Your task to perform on an android device: Go to calendar. Show me events next week Image 0: 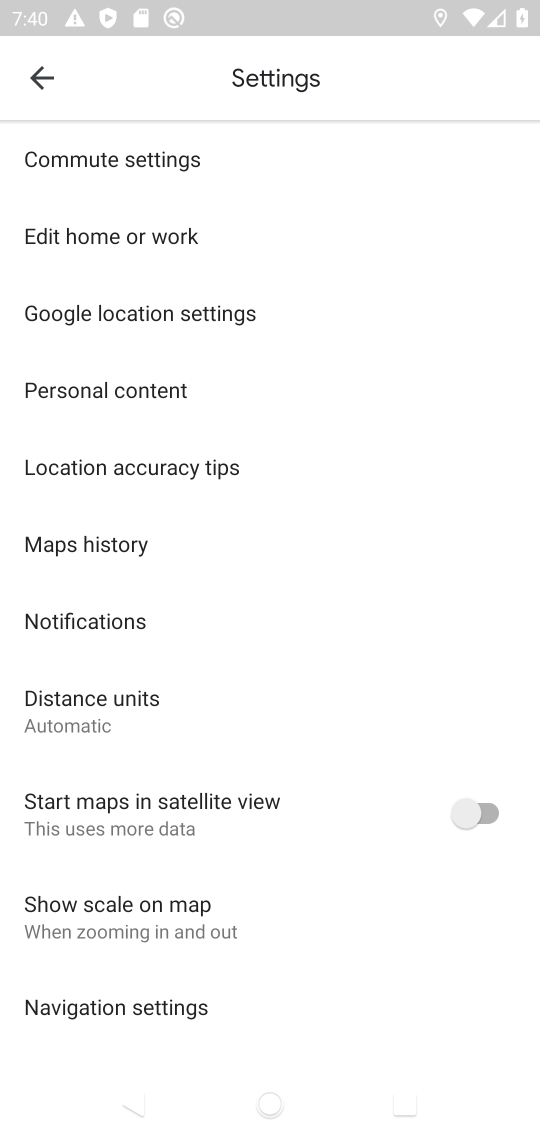
Step 0: press home button
Your task to perform on an android device: Go to calendar. Show me events next week Image 1: 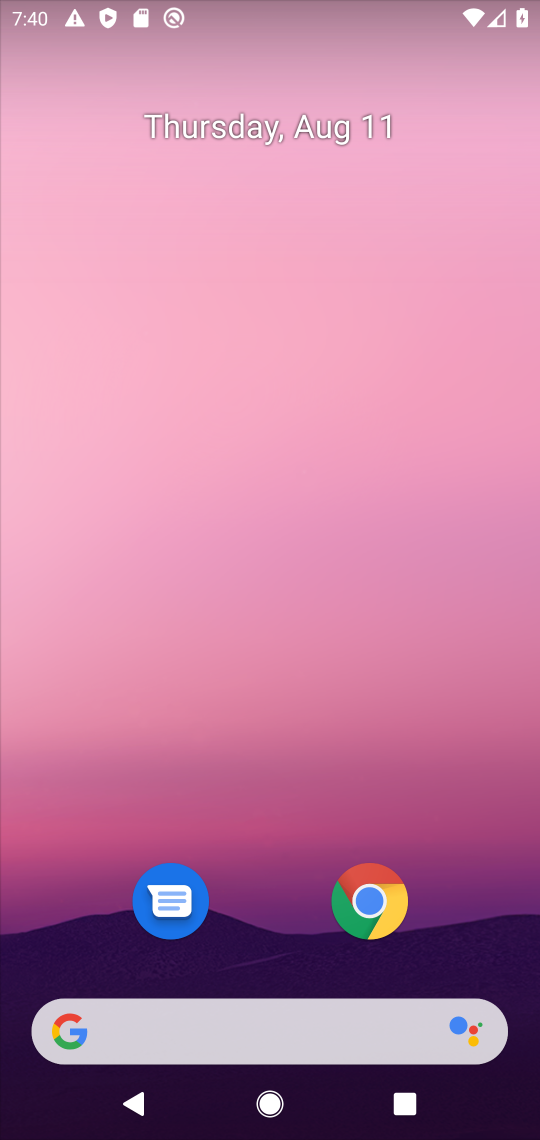
Step 1: drag from (281, 916) to (416, 41)
Your task to perform on an android device: Go to calendar. Show me events next week Image 2: 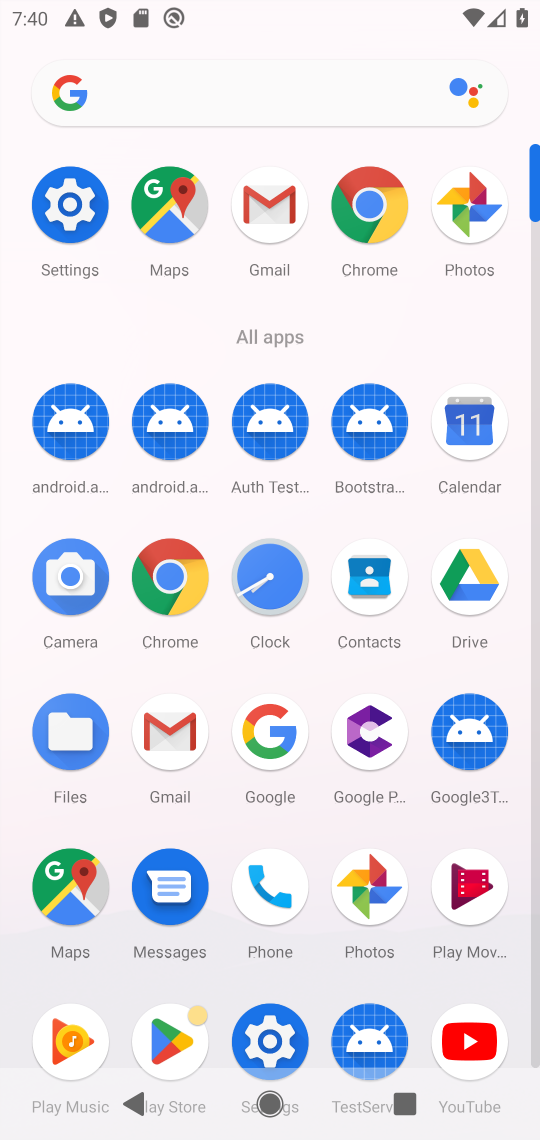
Step 2: click (471, 435)
Your task to perform on an android device: Go to calendar. Show me events next week Image 3: 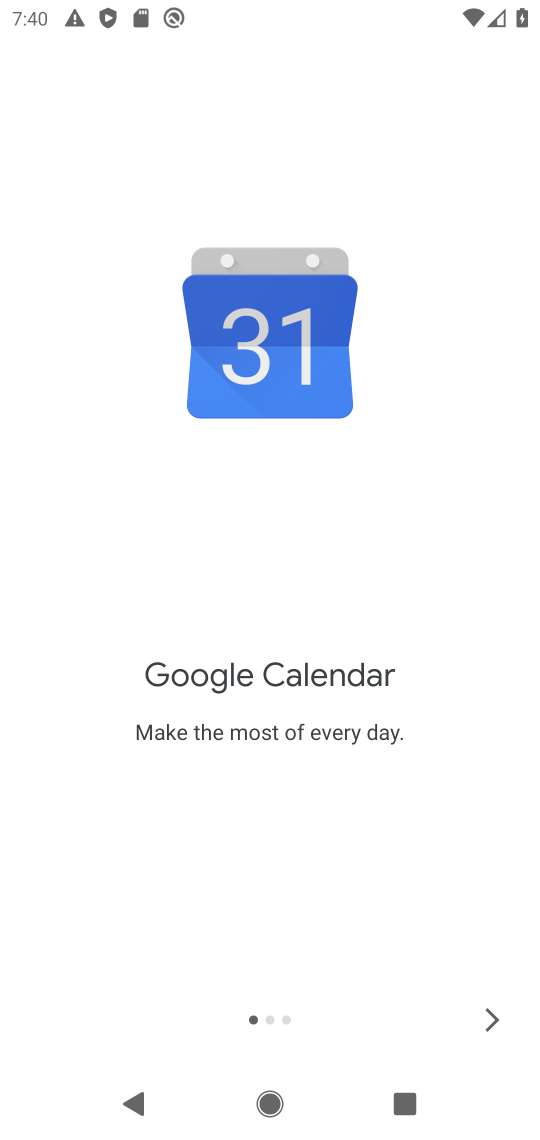
Step 3: click (488, 1021)
Your task to perform on an android device: Go to calendar. Show me events next week Image 4: 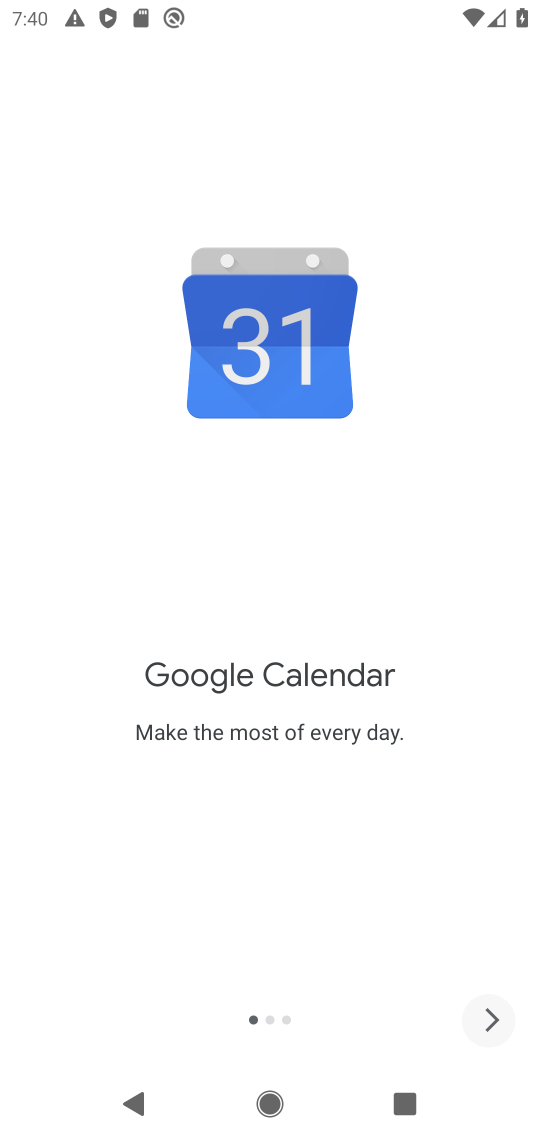
Step 4: click (488, 1021)
Your task to perform on an android device: Go to calendar. Show me events next week Image 5: 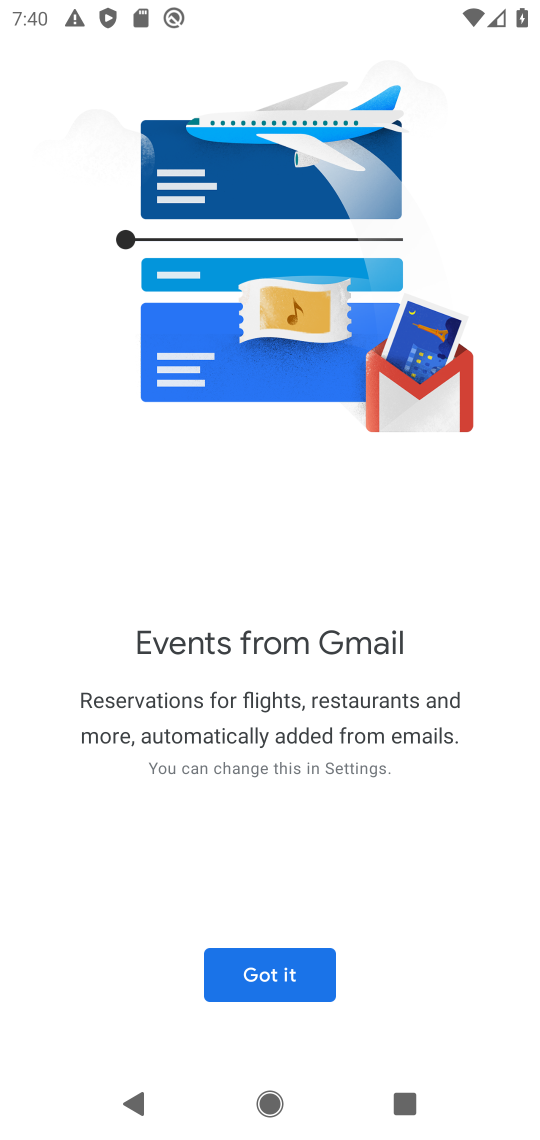
Step 5: click (293, 985)
Your task to perform on an android device: Go to calendar. Show me events next week Image 6: 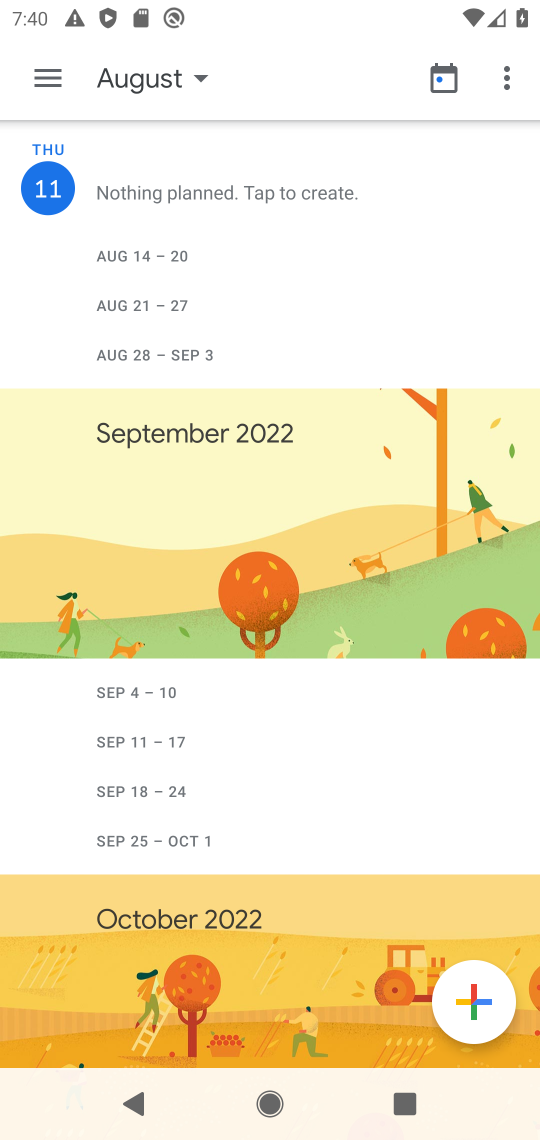
Step 6: click (129, 73)
Your task to perform on an android device: Go to calendar. Show me events next week Image 7: 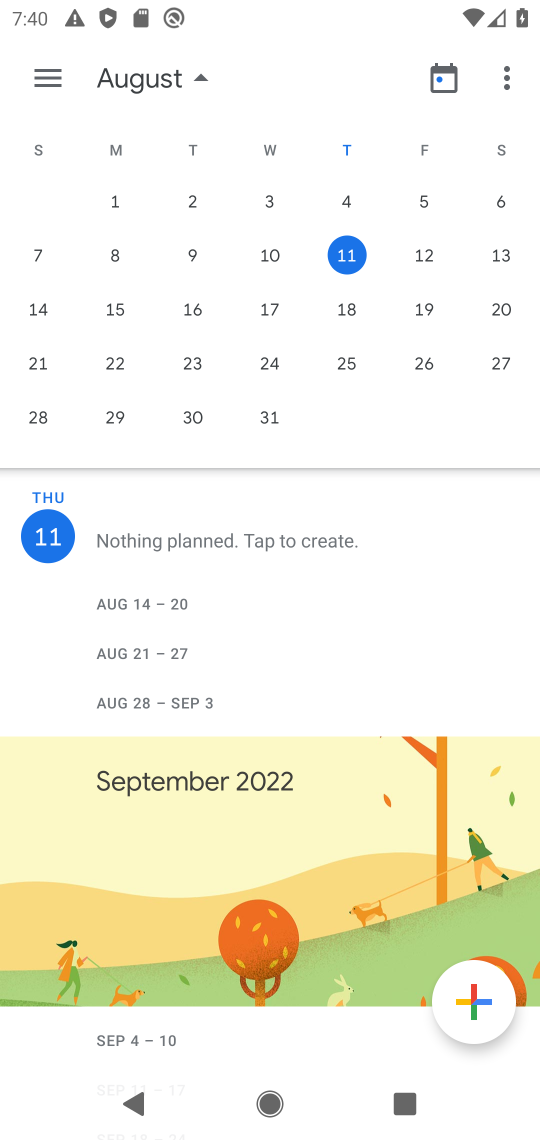
Step 7: click (268, 316)
Your task to perform on an android device: Go to calendar. Show me events next week Image 8: 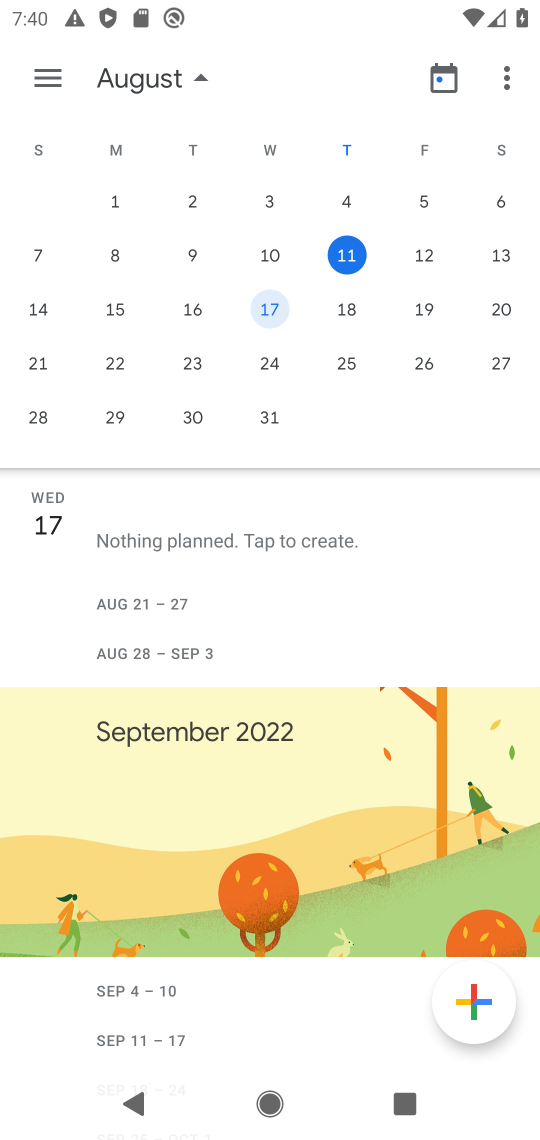
Step 8: click (27, 74)
Your task to perform on an android device: Go to calendar. Show me events next week Image 9: 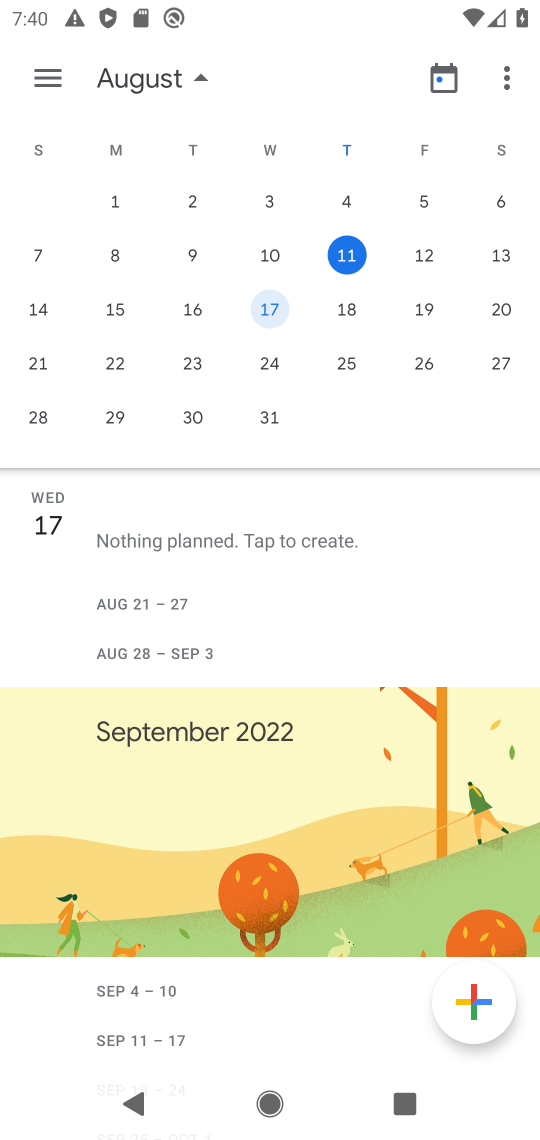
Step 9: click (29, 75)
Your task to perform on an android device: Go to calendar. Show me events next week Image 10: 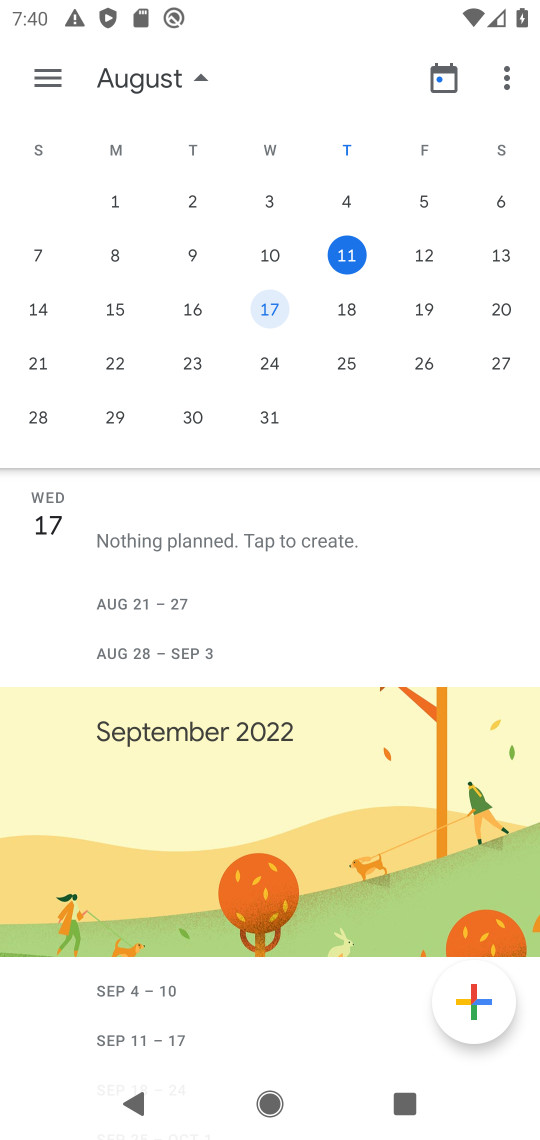
Step 10: click (34, 75)
Your task to perform on an android device: Go to calendar. Show me events next week Image 11: 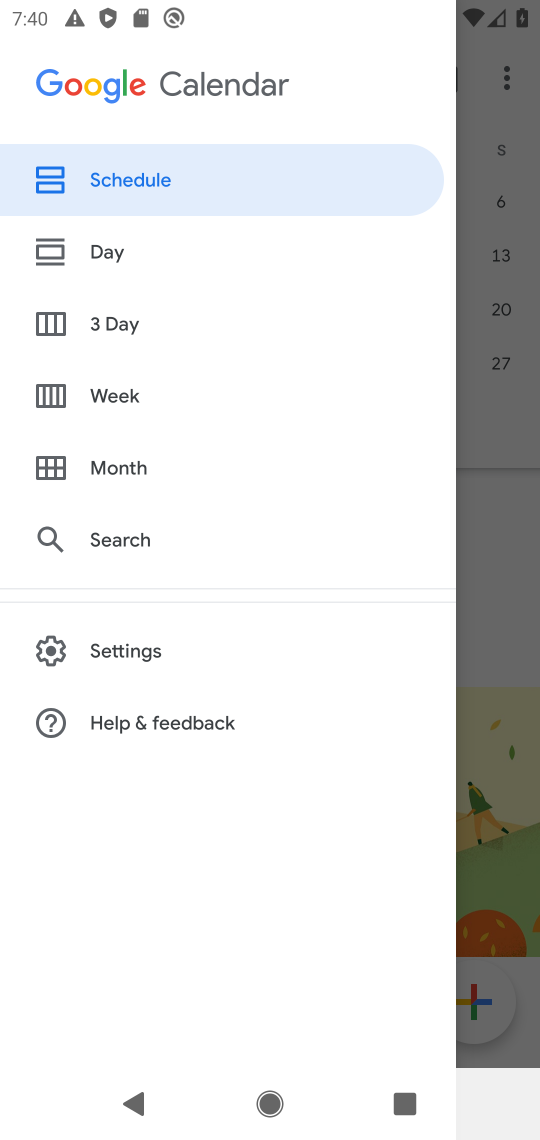
Step 11: click (117, 395)
Your task to perform on an android device: Go to calendar. Show me events next week Image 12: 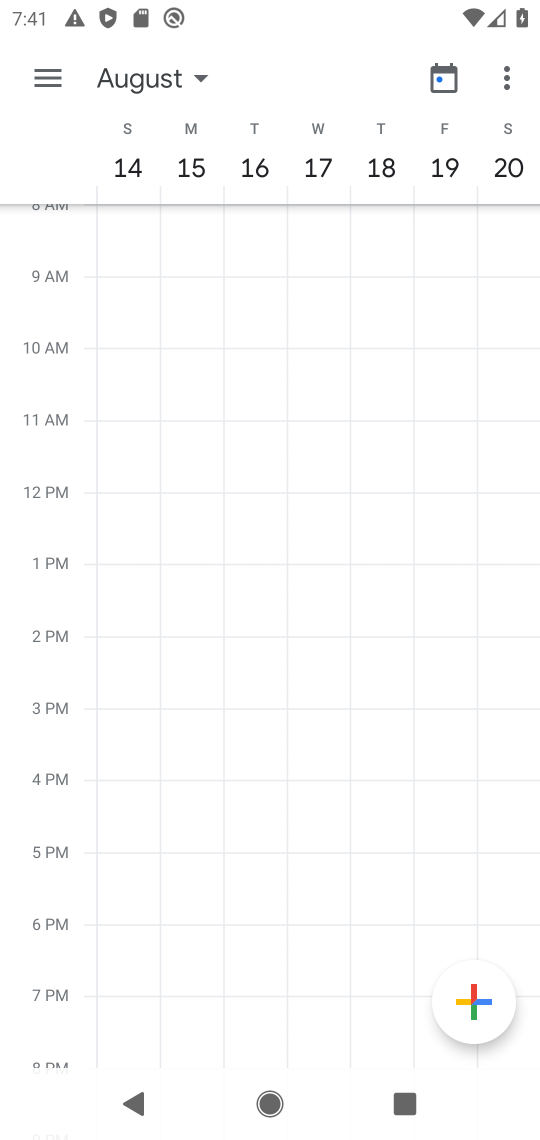
Step 12: task complete